Your task to perform on an android device: Clear all items from cart on bestbuy.com. Add "razer naga" to the cart on bestbuy.com Image 0: 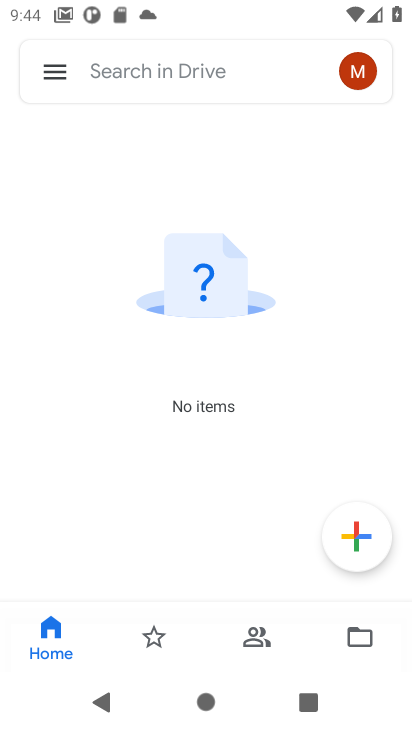
Step 0: press home button
Your task to perform on an android device: Clear all items from cart on bestbuy.com. Add "razer naga" to the cart on bestbuy.com Image 1: 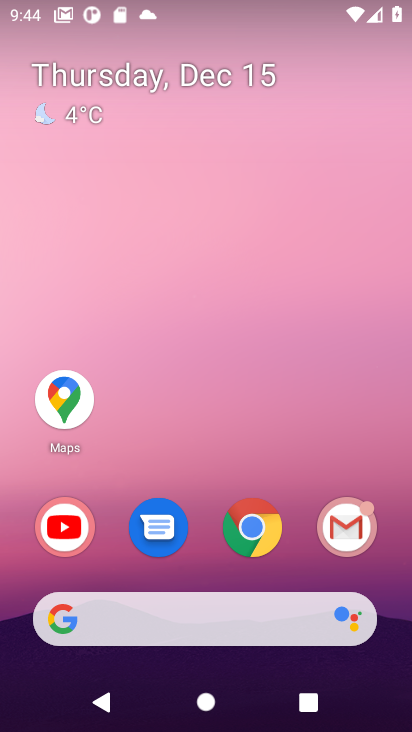
Step 1: click (260, 524)
Your task to perform on an android device: Clear all items from cart on bestbuy.com. Add "razer naga" to the cart on bestbuy.com Image 2: 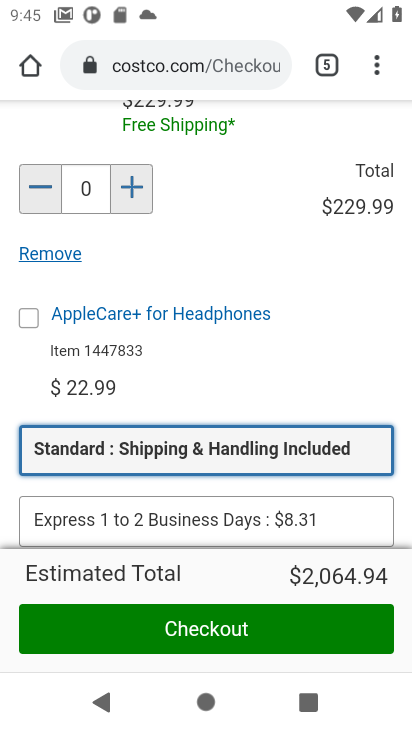
Step 2: click (190, 52)
Your task to perform on an android device: Clear all items from cart on bestbuy.com. Add "razer naga" to the cart on bestbuy.com Image 3: 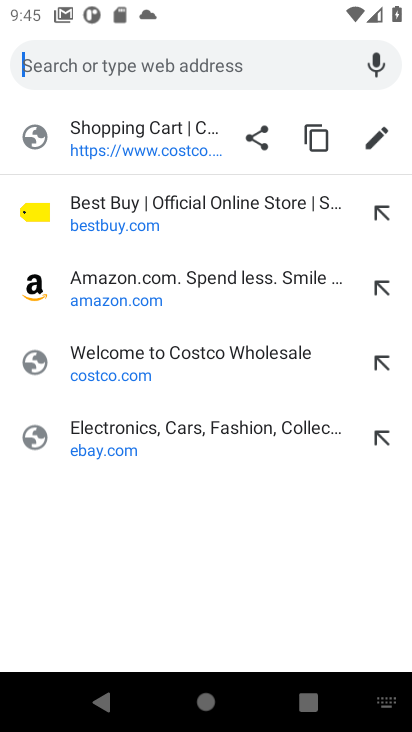
Step 3: click (147, 223)
Your task to perform on an android device: Clear all items from cart on bestbuy.com. Add "razer naga" to the cart on bestbuy.com Image 4: 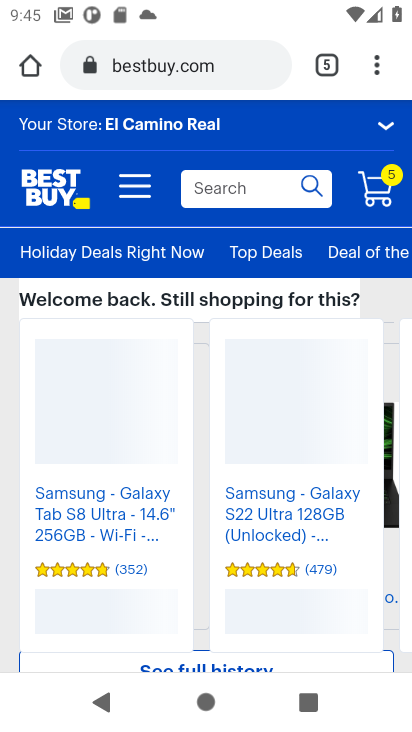
Step 4: click (248, 191)
Your task to perform on an android device: Clear all items from cart on bestbuy.com. Add "razer naga" to the cart on bestbuy.com Image 5: 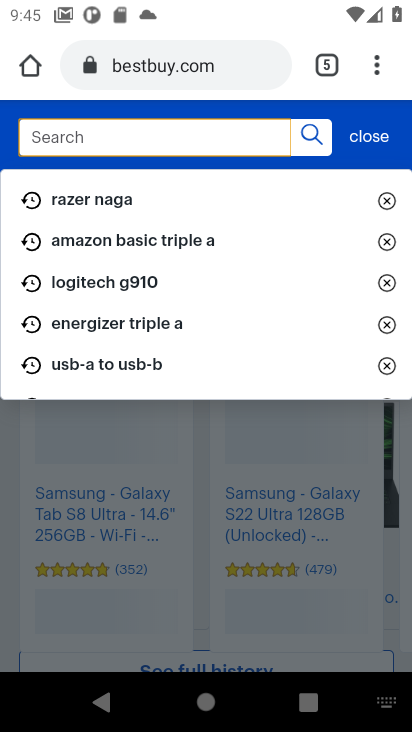
Step 5: type "razer naga"
Your task to perform on an android device: Clear all items from cart on bestbuy.com. Add "razer naga" to the cart on bestbuy.com Image 6: 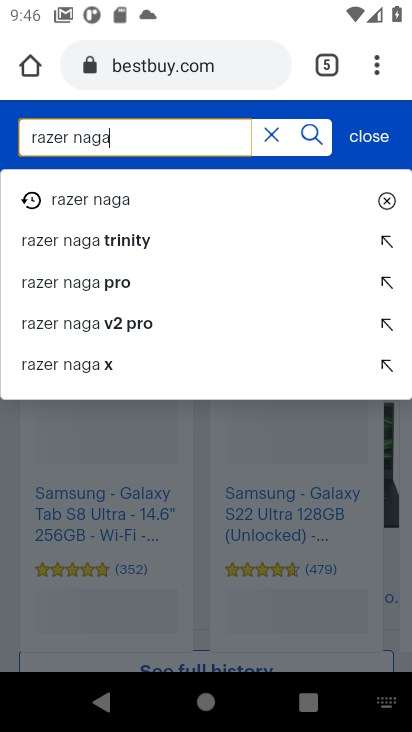
Step 6: click (91, 219)
Your task to perform on an android device: Clear all items from cart on bestbuy.com. Add "razer naga" to the cart on bestbuy.com Image 7: 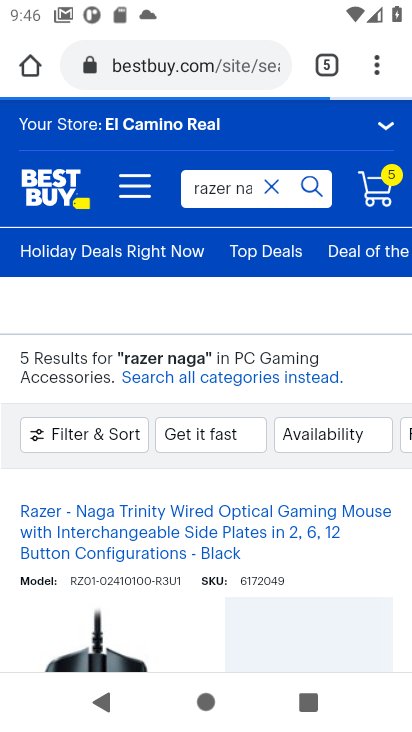
Step 7: click (269, 656)
Your task to perform on an android device: Clear all items from cart on bestbuy.com. Add "razer naga" to the cart on bestbuy.com Image 8: 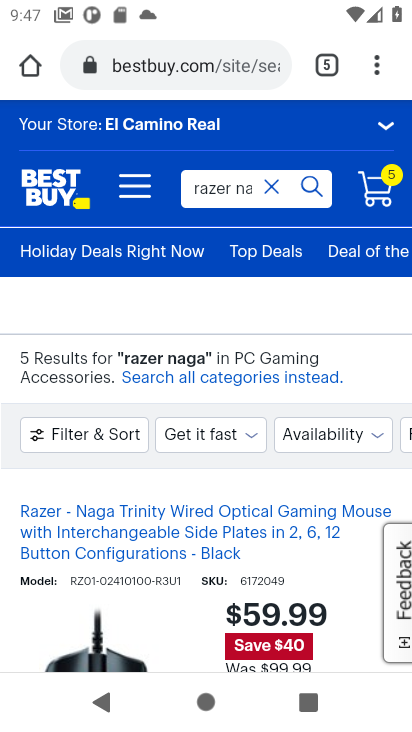
Step 8: task complete